Your task to perform on an android device: Open sound settings Image 0: 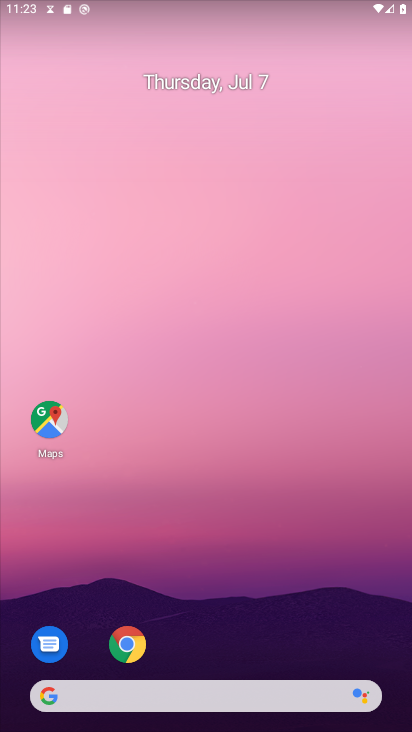
Step 0: press home button
Your task to perform on an android device: Open sound settings Image 1: 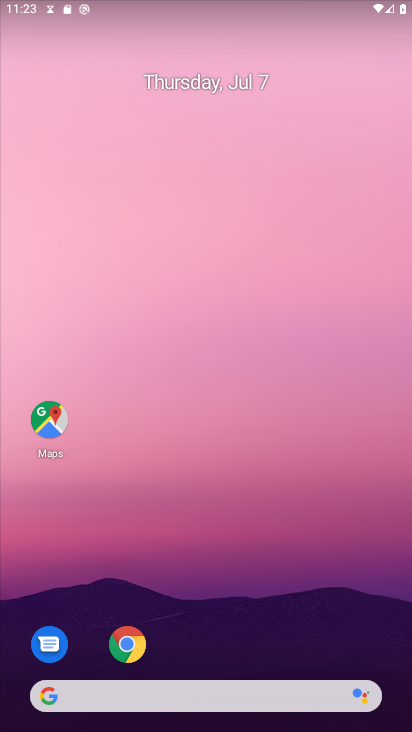
Step 1: click (267, 57)
Your task to perform on an android device: Open sound settings Image 2: 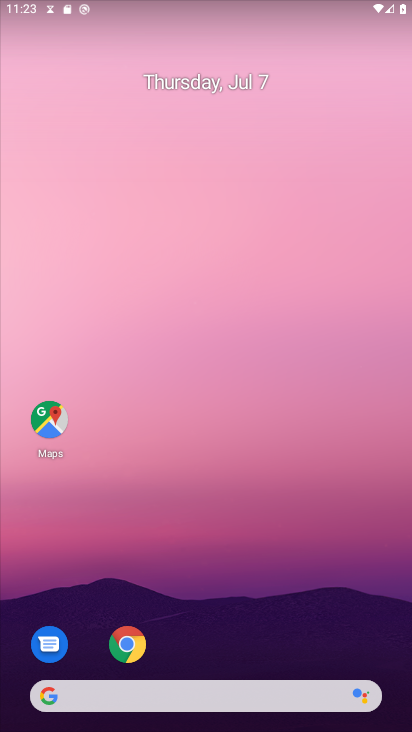
Step 2: drag from (237, 585) to (304, 16)
Your task to perform on an android device: Open sound settings Image 3: 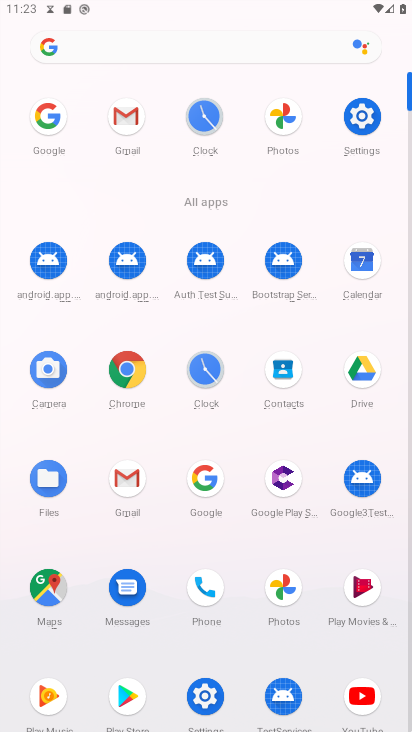
Step 3: click (355, 107)
Your task to perform on an android device: Open sound settings Image 4: 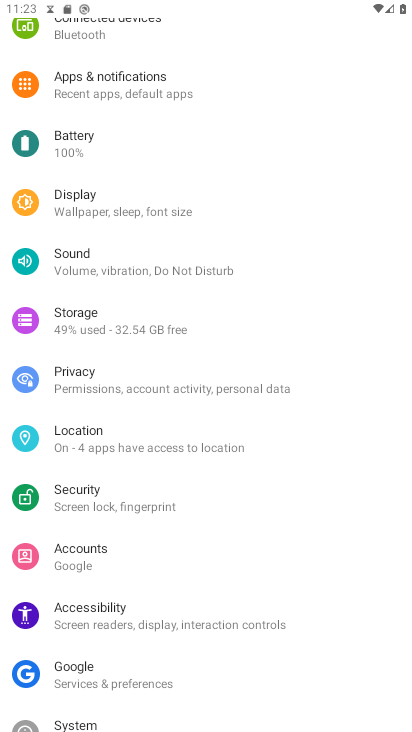
Step 4: click (91, 251)
Your task to perform on an android device: Open sound settings Image 5: 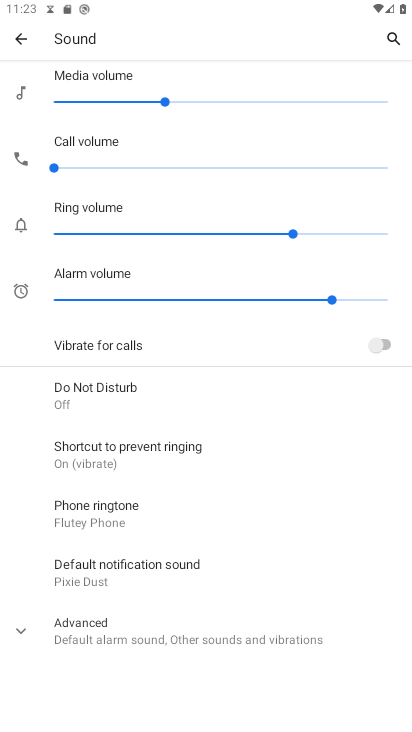
Step 5: task complete